Your task to perform on an android device: turn off priority inbox in the gmail app Image 0: 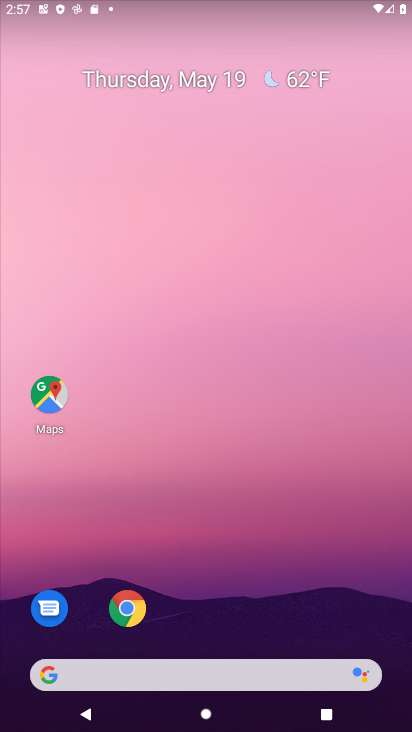
Step 0: drag from (266, 593) to (252, 121)
Your task to perform on an android device: turn off priority inbox in the gmail app Image 1: 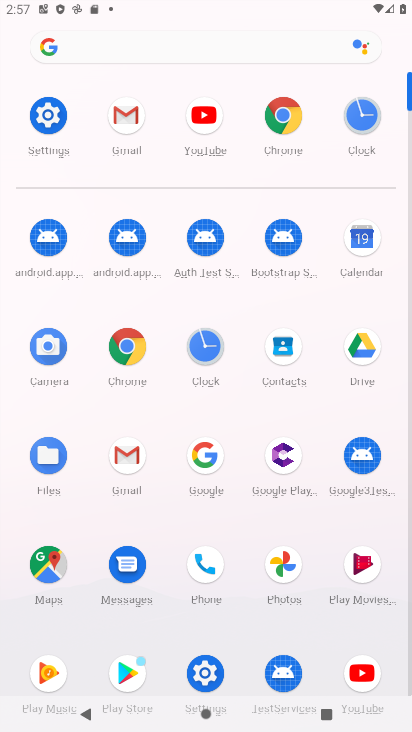
Step 1: click (135, 145)
Your task to perform on an android device: turn off priority inbox in the gmail app Image 2: 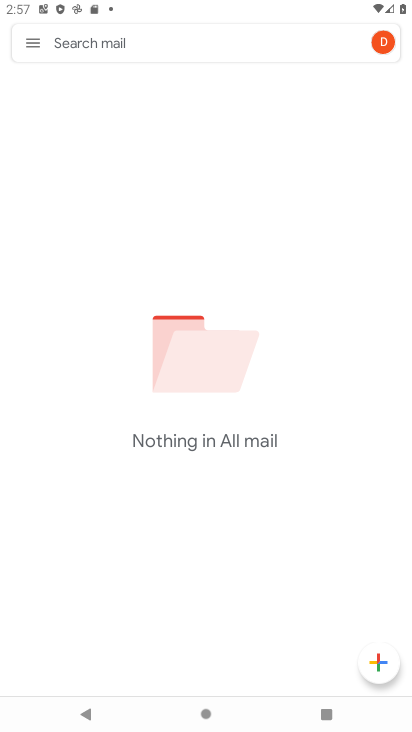
Step 2: click (32, 32)
Your task to perform on an android device: turn off priority inbox in the gmail app Image 3: 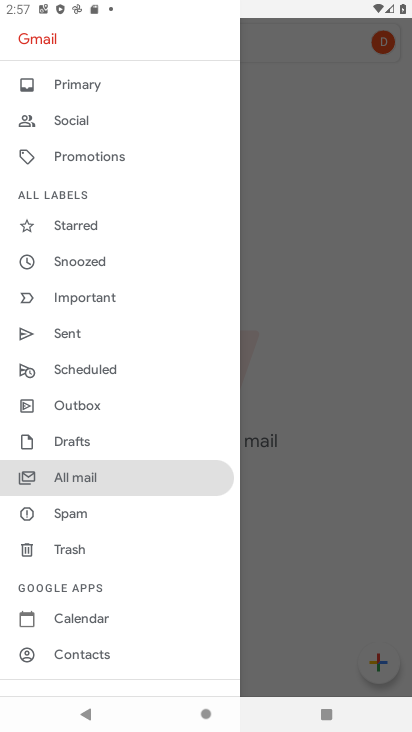
Step 3: drag from (70, 603) to (95, 340)
Your task to perform on an android device: turn off priority inbox in the gmail app Image 4: 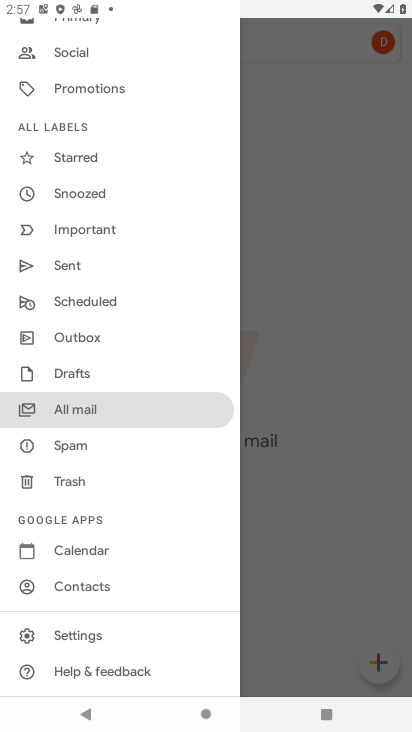
Step 4: click (121, 633)
Your task to perform on an android device: turn off priority inbox in the gmail app Image 5: 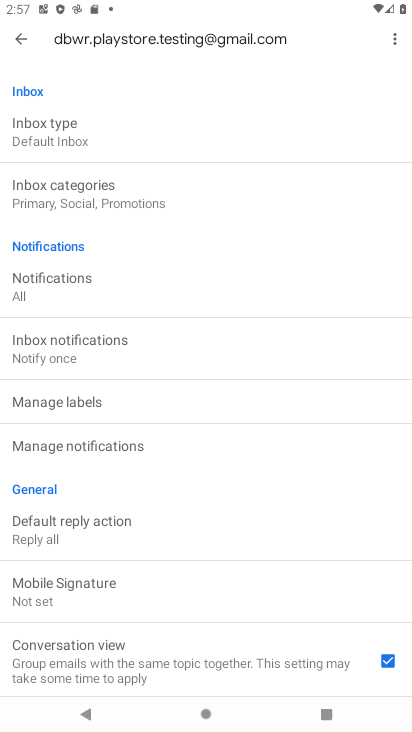
Step 5: drag from (174, 626) to (139, 695)
Your task to perform on an android device: turn off priority inbox in the gmail app Image 6: 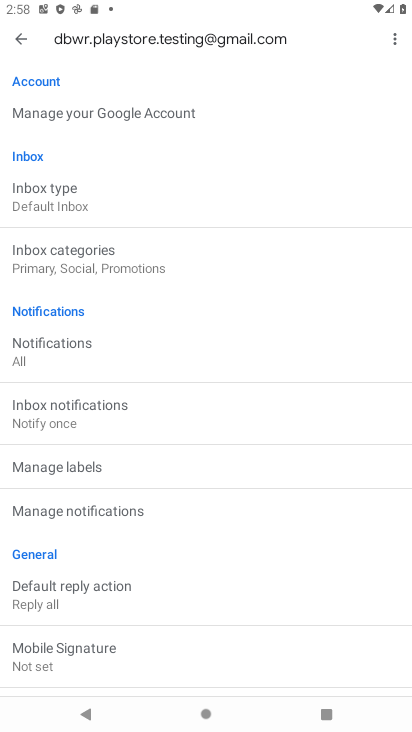
Step 6: click (195, 181)
Your task to perform on an android device: turn off priority inbox in the gmail app Image 7: 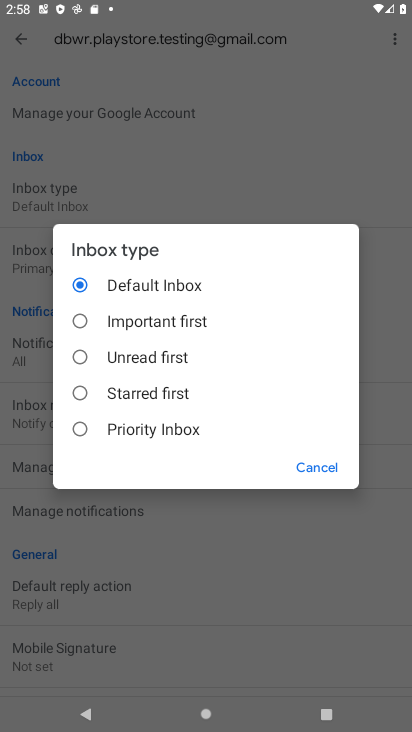
Step 7: click (184, 438)
Your task to perform on an android device: turn off priority inbox in the gmail app Image 8: 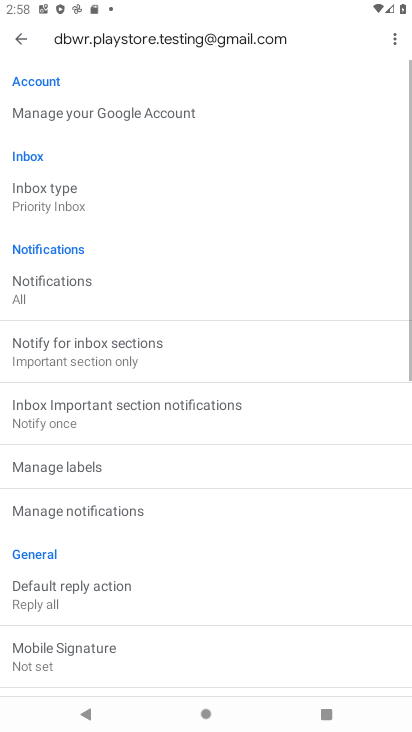
Step 8: task complete